Your task to perform on an android device: Open calendar and show me the third week of next month Image 0: 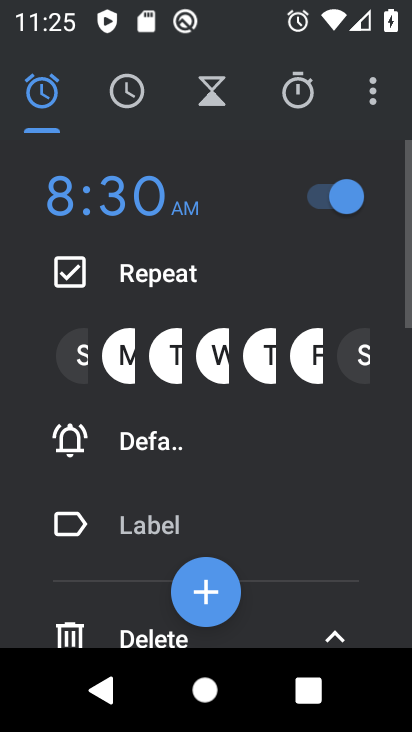
Step 0: press home button
Your task to perform on an android device: Open calendar and show me the third week of next month Image 1: 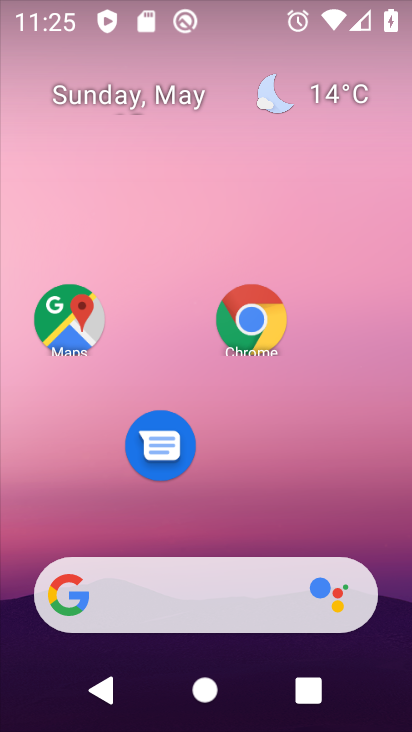
Step 1: drag from (171, 590) to (316, 179)
Your task to perform on an android device: Open calendar and show me the third week of next month Image 2: 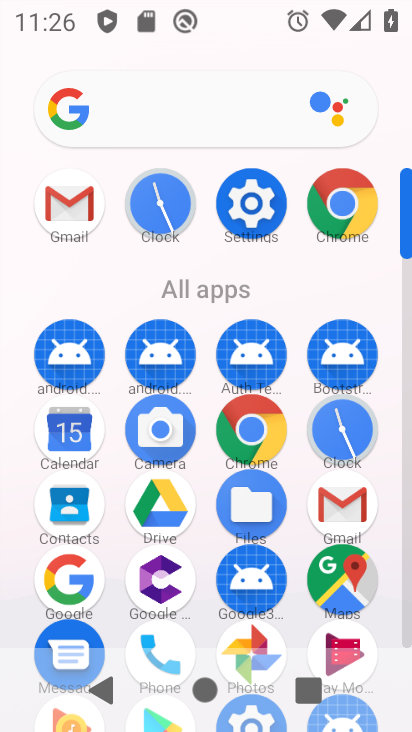
Step 2: click (72, 438)
Your task to perform on an android device: Open calendar and show me the third week of next month Image 3: 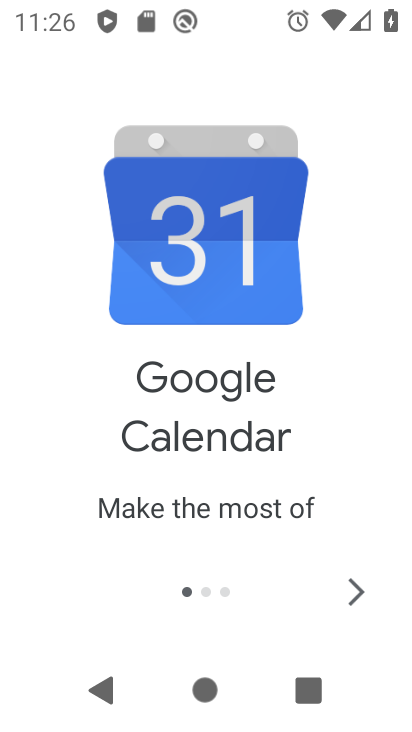
Step 3: click (357, 591)
Your task to perform on an android device: Open calendar and show me the third week of next month Image 4: 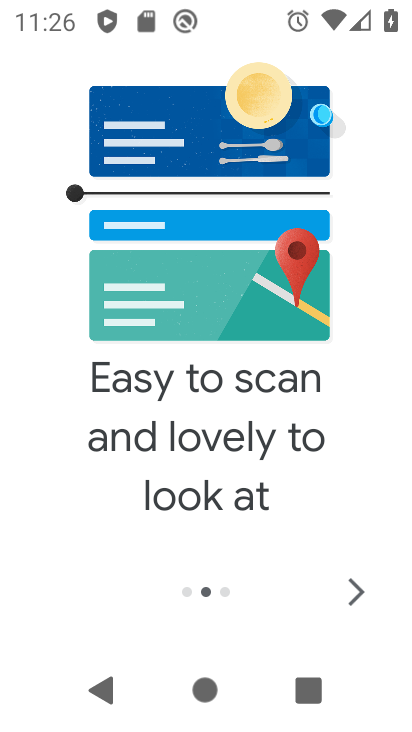
Step 4: click (357, 591)
Your task to perform on an android device: Open calendar and show me the third week of next month Image 5: 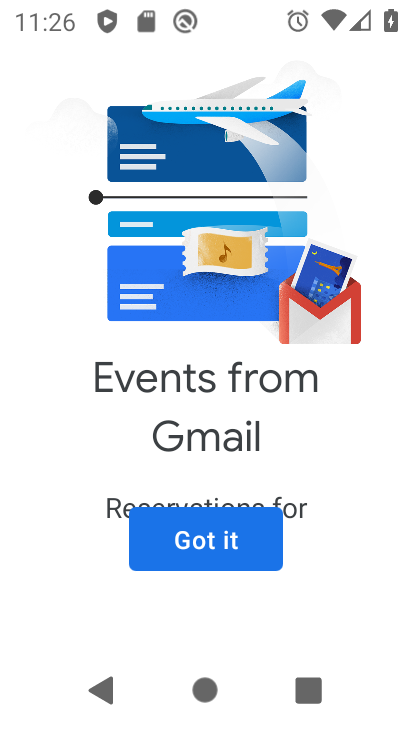
Step 5: click (220, 547)
Your task to perform on an android device: Open calendar and show me the third week of next month Image 6: 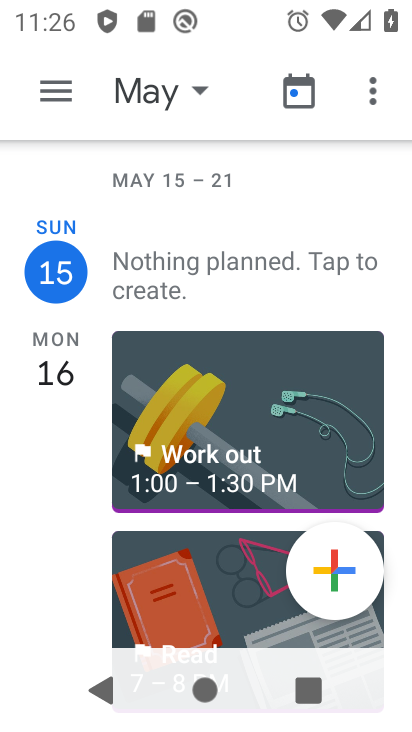
Step 6: click (145, 90)
Your task to perform on an android device: Open calendar and show me the third week of next month Image 7: 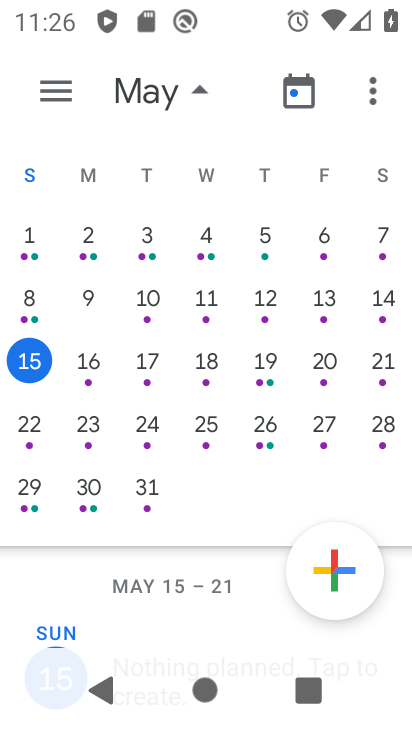
Step 7: drag from (367, 382) to (19, 381)
Your task to perform on an android device: Open calendar and show me the third week of next month Image 8: 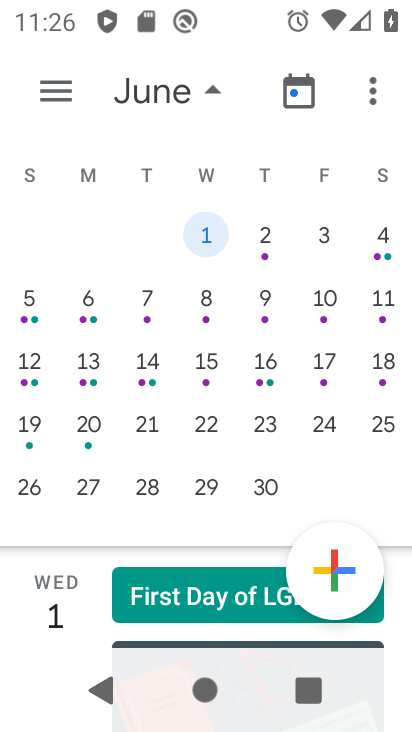
Step 8: click (30, 366)
Your task to perform on an android device: Open calendar and show me the third week of next month Image 9: 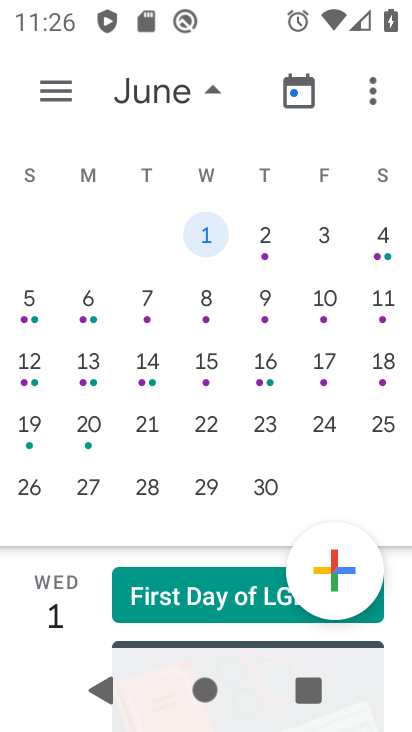
Step 9: click (38, 359)
Your task to perform on an android device: Open calendar and show me the third week of next month Image 10: 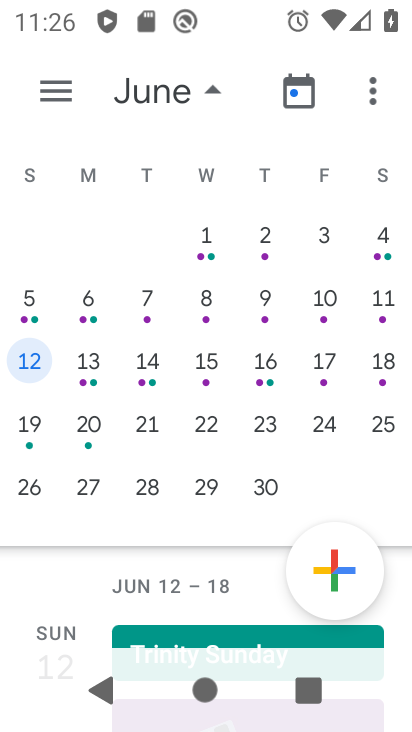
Step 10: click (64, 96)
Your task to perform on an android device: Open calendar and show me the third week of next month Image 11: 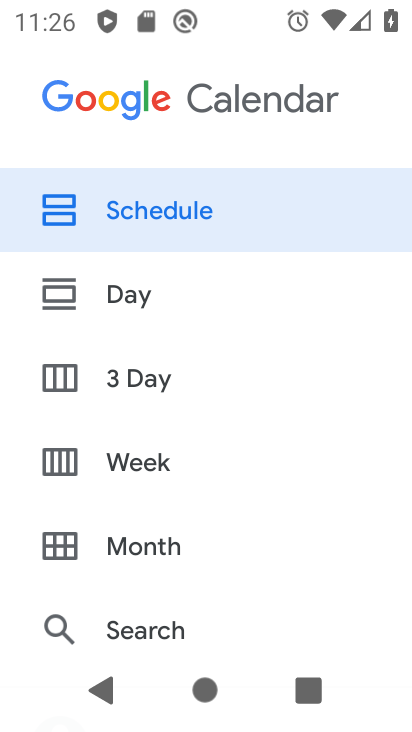
Step 11: click (143, 463)
Your task to perform on an android device: Open calendar and show me the third week of next month Image 12: 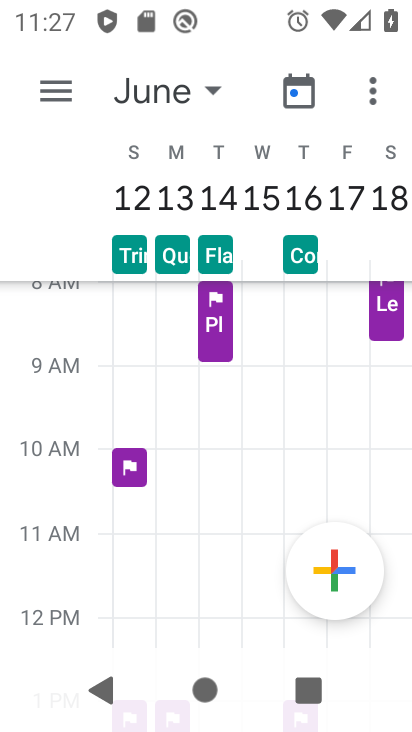
Step 12: task complete